Your task to perform on an android device: What is the news today? Image 0: 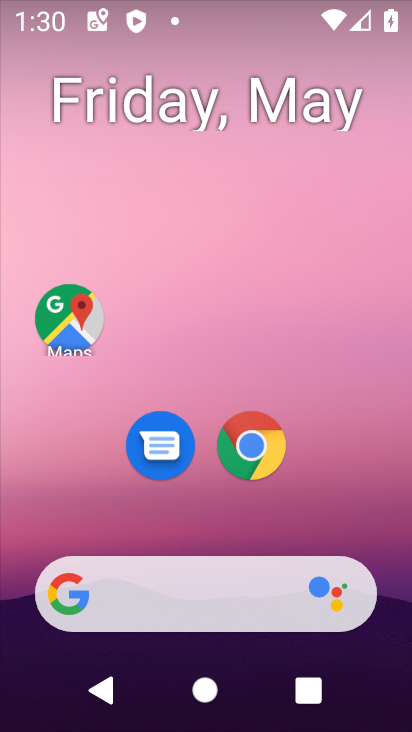
Step 0: drag from (15, 200) to (405, 265)
Your task to perform on an android device: What is the news today? Image 1: 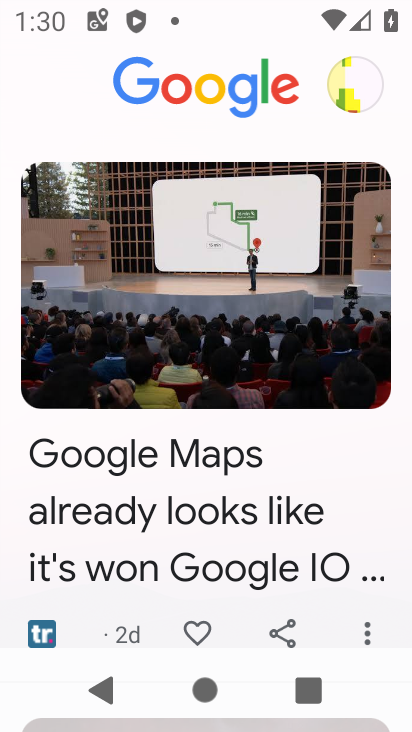
Step 1: task complete